Your task to perform on an android device: change notification settings in the gmail app Image 0: 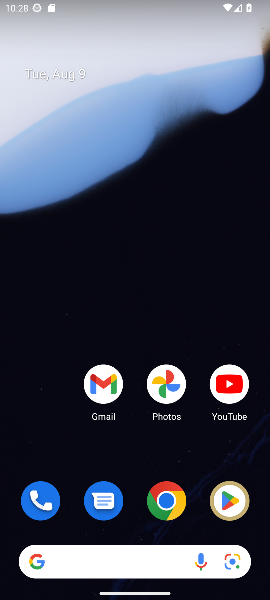
Step 0: click (98, 397)
Your task to perform on an android device: change notification settings in the gmail app Image 1: 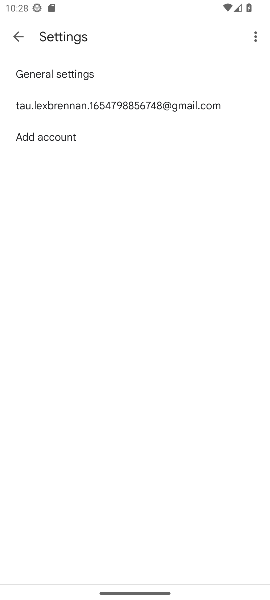
Step 1: click (52, 109)
Your task to perform on an android device: change notification settings in the gmail app Image 2: 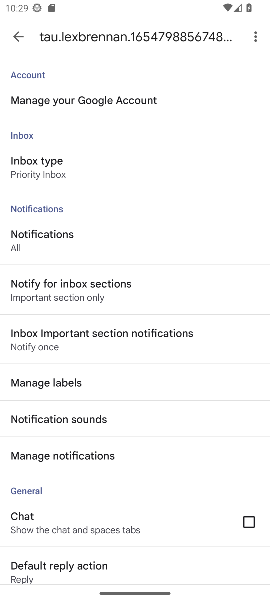
Step 2: click (30, 459)
Your task to perform on an android device: change notification settings in the gmail app Image 3: 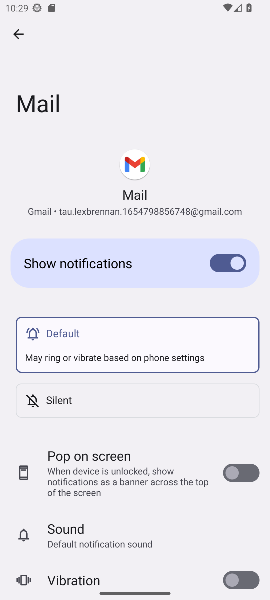
Step 3: click (213, 271)
Your task to perform on an android device: change notification settings in the gmail app Image 4: 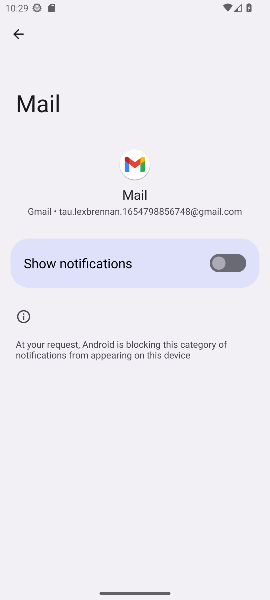
Step 4: task complete